Your task to perform on an android device: turn off javascript in the chrome app Image 0: 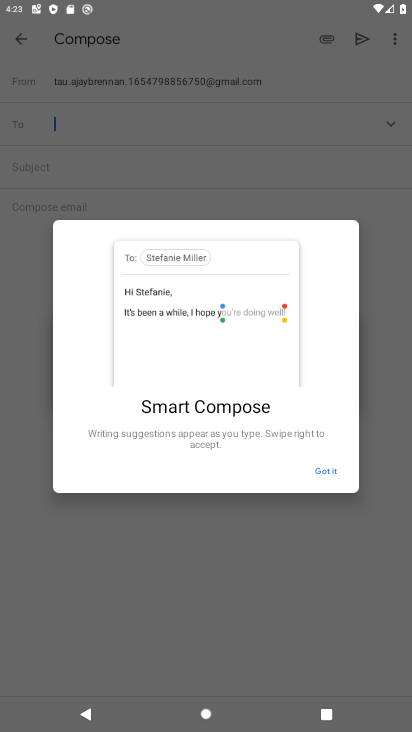
Step 0: press home button
Your task to perform on an android device: turn off javascript in the chrome app Image 1: 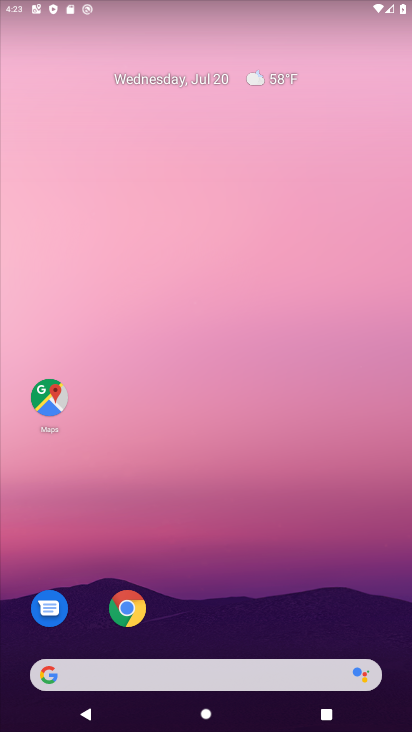
Step 1: click (133, 614)
Your task to perform on an android device: turn off javascript in the chrome app Image 2: 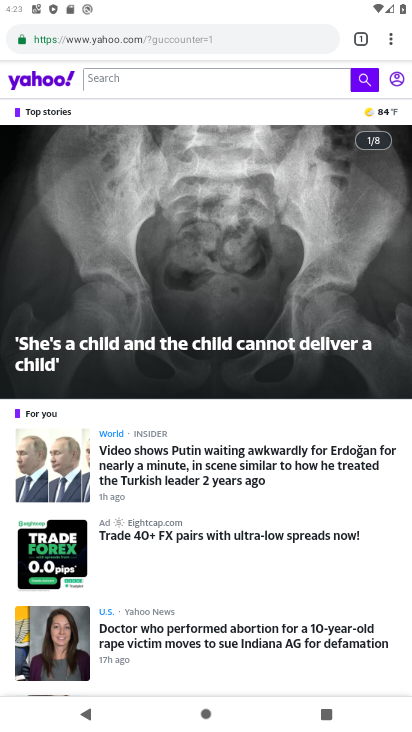
Step 2: click (387, 44)
Your task to perform on an android device: turn off javascript in the chrome app Image 3: 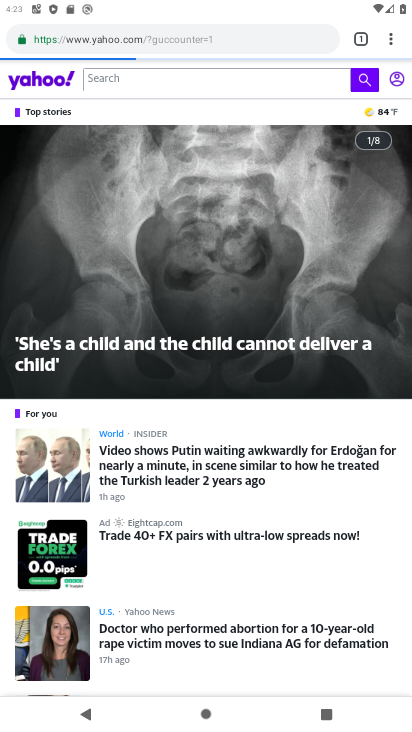
Step 3: click (387, 44)
Your task to perform on an android device: turn off javascript in the chrome app Image 4: 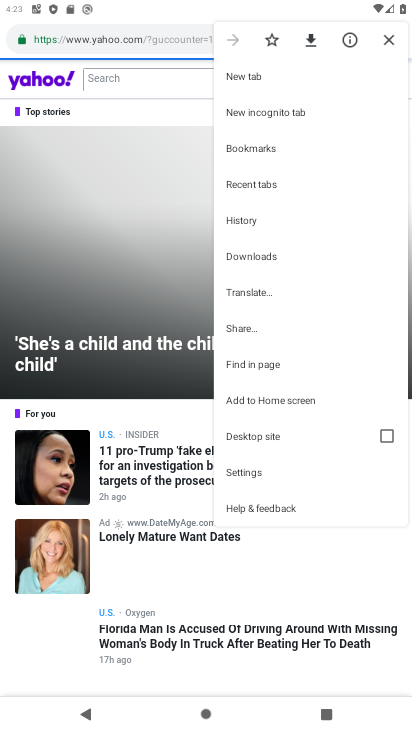
Step 4: click (265, 471)
Your task to perform on an android device: turn off javascript in the chrome app Image 5: 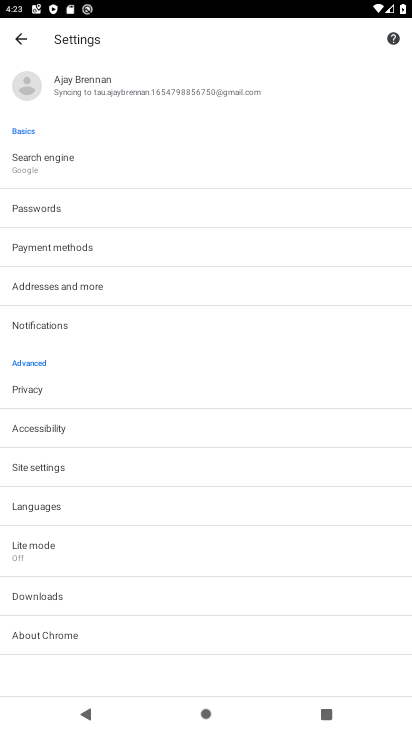
Step 5: click (44, 455)
Your task to perform on an android device: turn off javascript in the chrome app Image 6: 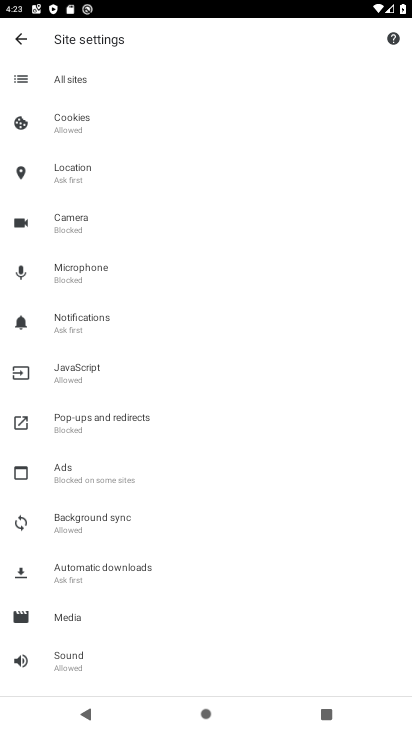
Step 6: click (70, 362)
Your task to perform on an android device: turn off javascript in the chrome app Image 7: 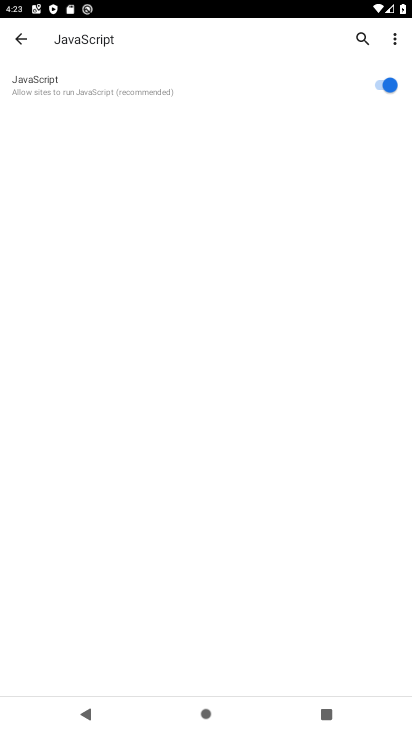
Step 7: click (378, 88)
Your task to perform on an android device: turn off javascript in the chrome app Image 8: 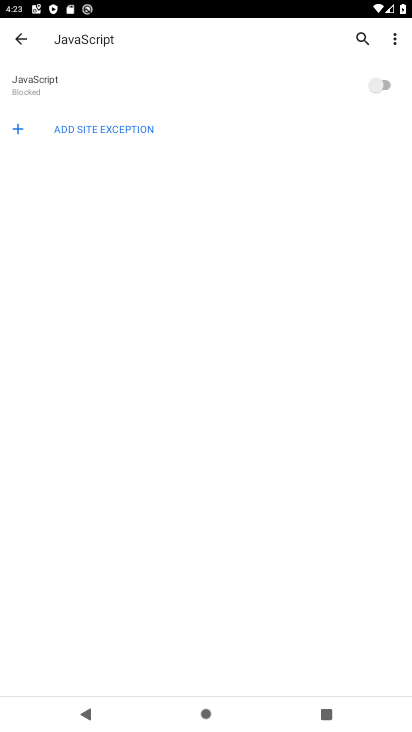
Step 8: task complete